Your task to perform on an android device: toggle translation in the chrome app Image 0: 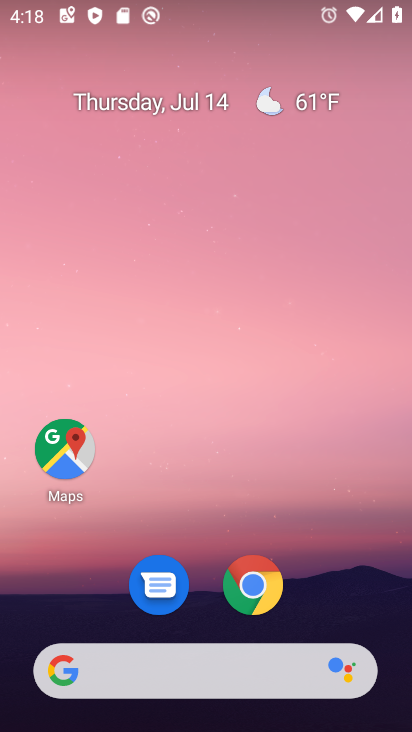
Step 0: click (260, 581)
Your task to perform on an android device: toggle translation in the chrome app Image 1: 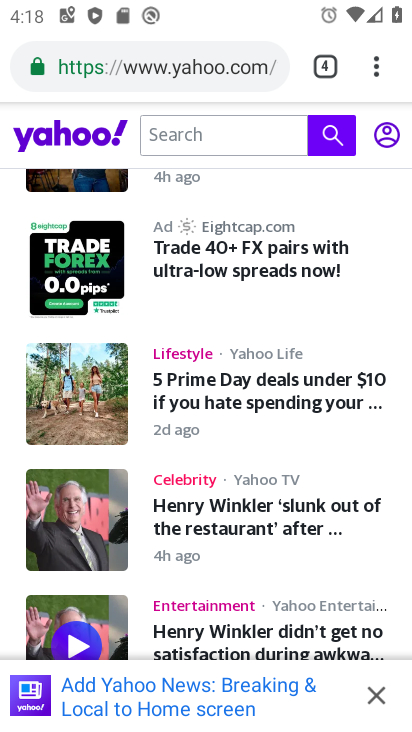
Step 1: click (368, 63)
Your task to perform on an android device: toggle translation in the chrome app Image 2: 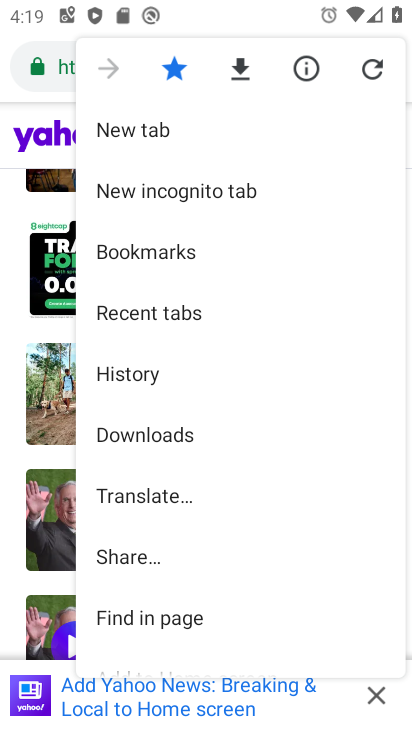
Step 2: drag from (240, 510) to (228, 213)
Your task to perform on an android device: toggle translation in the chrome app Image 3: 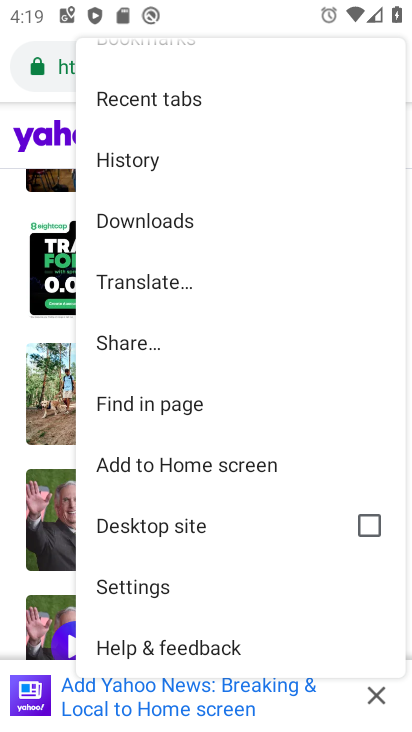
Step 3: click (159, 591)
Your task to perform on an android device: toggle translation in the chrome app Image 4: 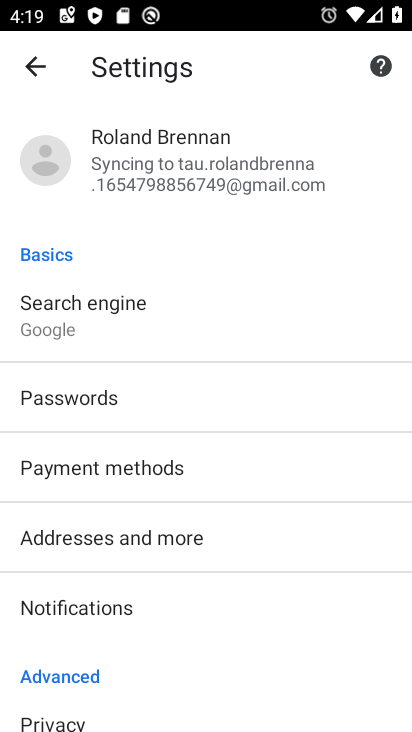
Step 4: drag from (230, 633) to (273, 128)
Your task to perform on an android device: toggle translation in the chrome app Image 5: 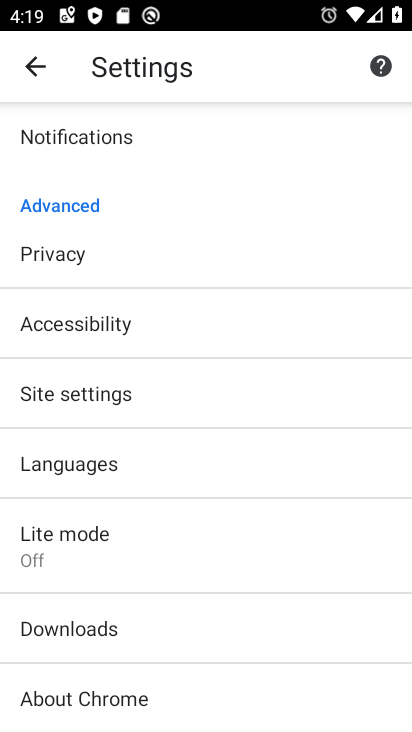
Step 5: click (160, 474)
Your task to perform on an android device: toggle translation in the chrome app Image 6: 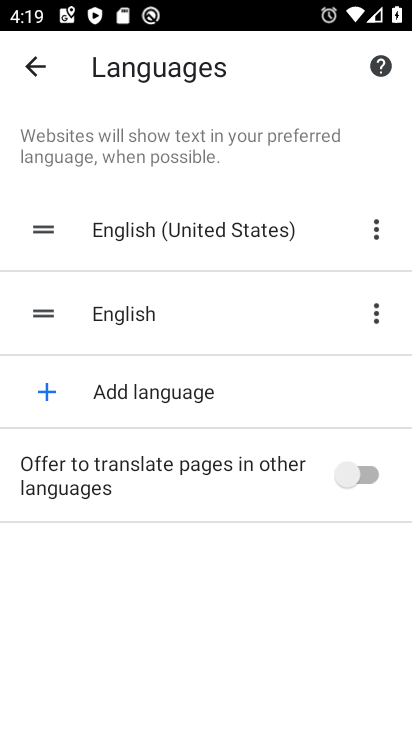
Step 6: click (357, 460)
Your task to perform on an android device: toggle translation in the chrome app Image 7: 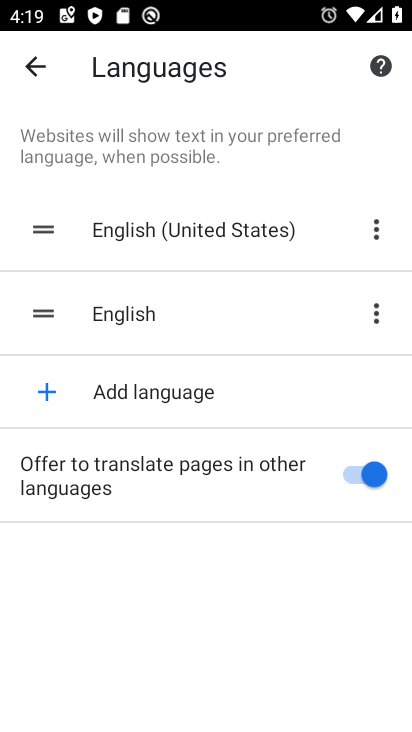
Step 7: task complete